Your task to perform on an android device: set default search engine in the chrome app Image 0: 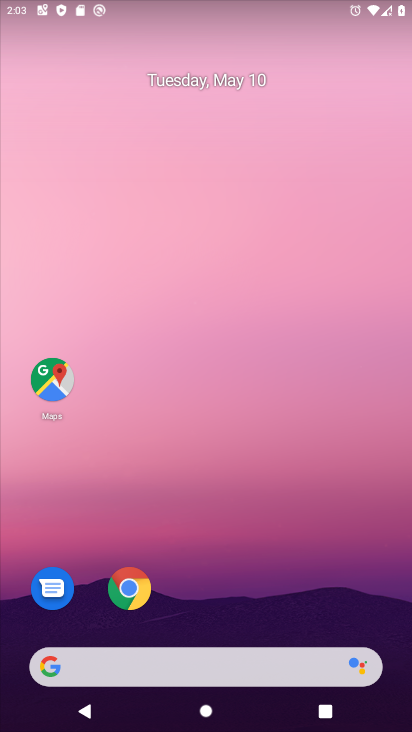
Step 0: click (264, 262)
Your task to perform on an android device: set default search engine in the chrome app Image 1: 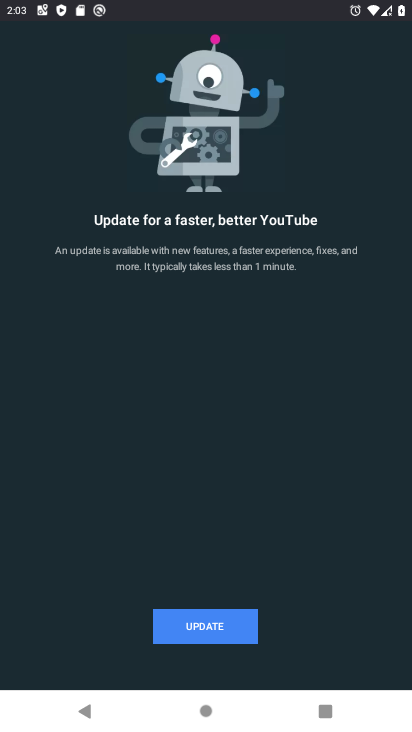
Step 1: press home button
Your task to perform on an android device: set default search engine in the chrome app Image 2: 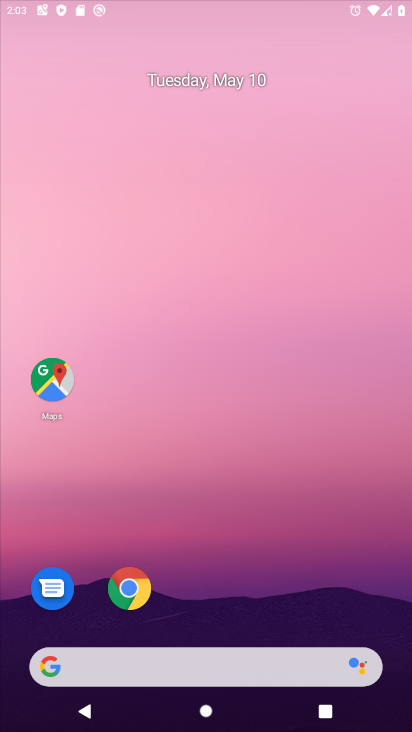
Step 2: drag from (285, 514) to (283, 234)
Your task to perform on an android device: set default search engine in the chrome app Image 3: 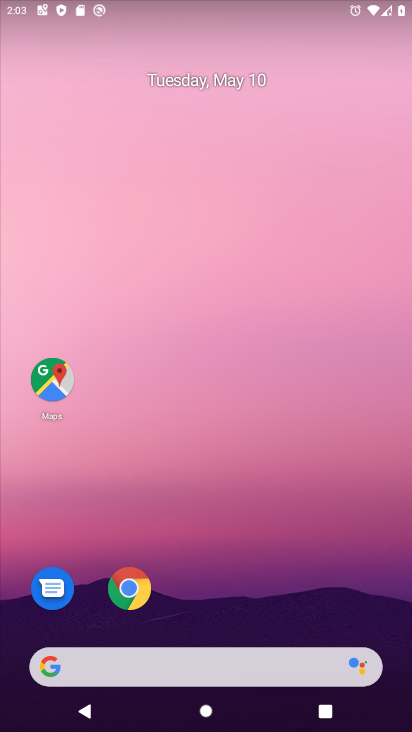
Step 3: click (127, 583)
Your task to perform on an android device: set default search engine in the chrome app Image 4: 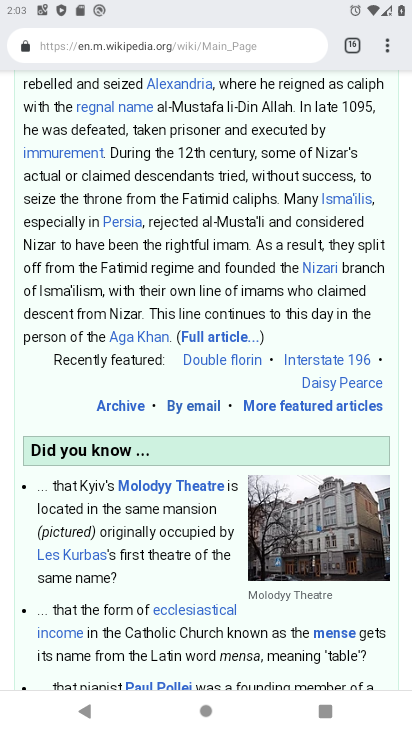
Step 4: click (371, 43)
Your task to perform on an android device: set default search engine in the chrome app Image 5: 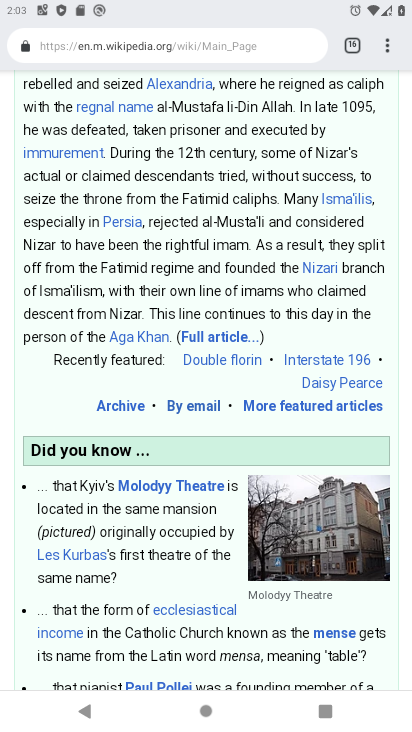
Step 5: click (381, 35)
Your task to perform on an android device: set default search engine in the chrome app Image 6: 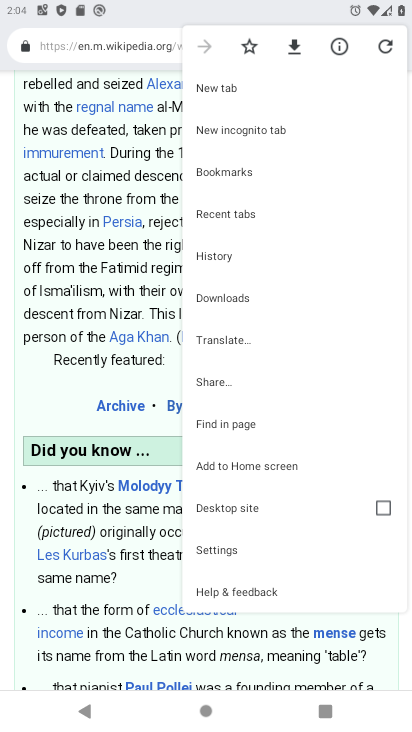
Step 6: click (223, 541)
Your task to perform on an android device: set default search engine in the chrome app Image 7: 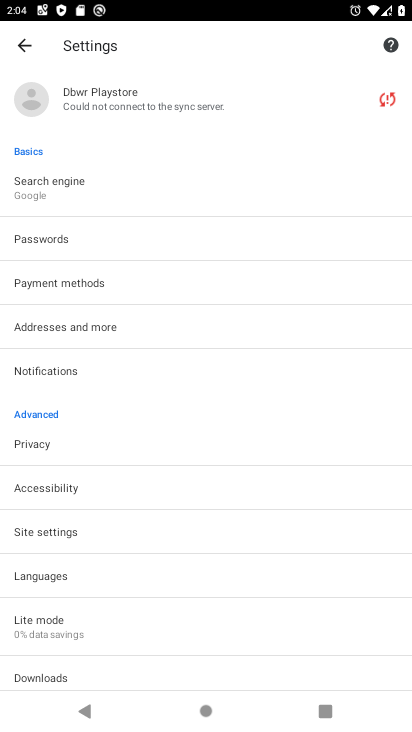
Step 7: click (93, 531)
Your task to perform on an android device: set default search engine in the chrome app Image 8: 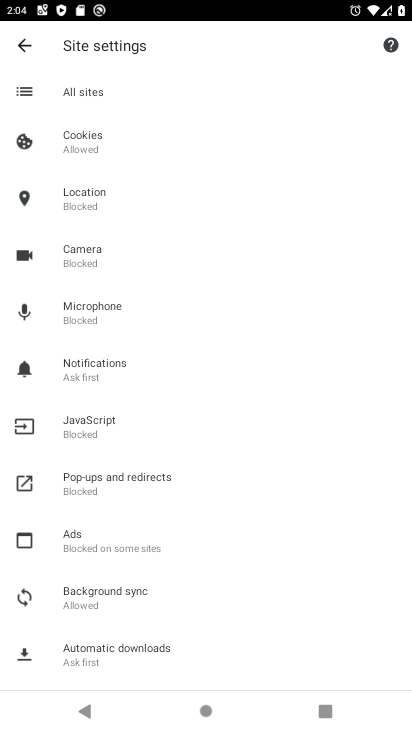
Step 8: click (107, 197)
Your task to perform on an android device: set default search engine in the chrome app Image 9: 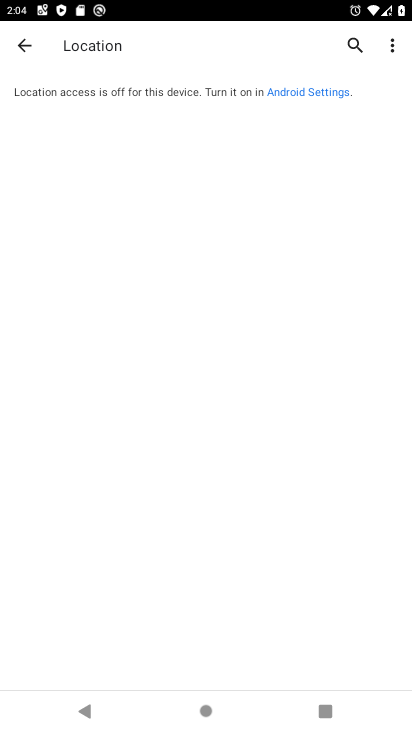
Step 9: click (18, 35)
Your task to perform on an android device: set default search engine in the chrome app Image 10: 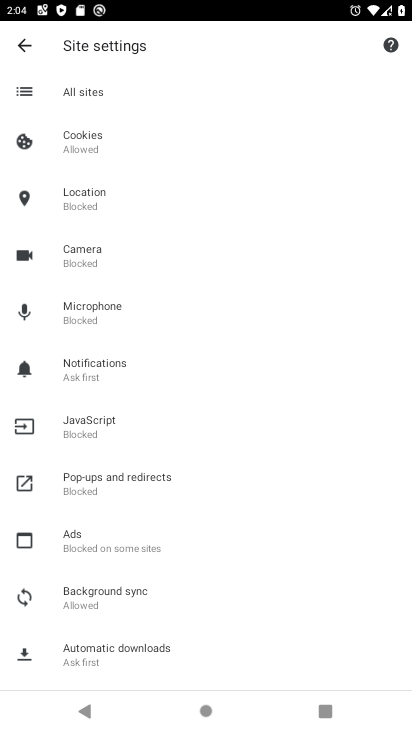
Step 10: click (102, 208)
Your task to perform on an android device: set default search engine in the chrome app Image 11: 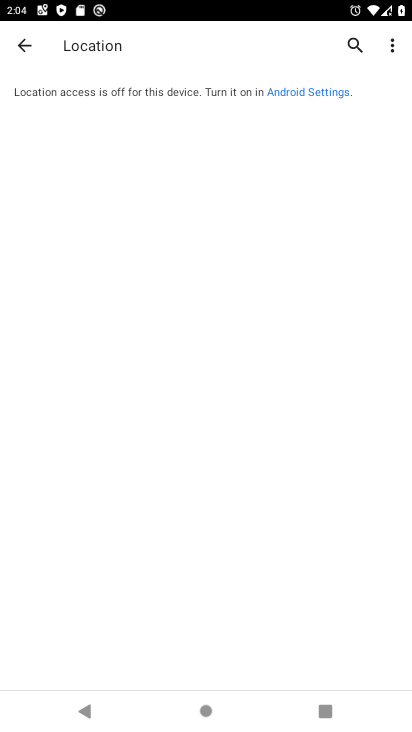
Step 11: task complete